Your task to perform on an android device: set the timer Image 0: 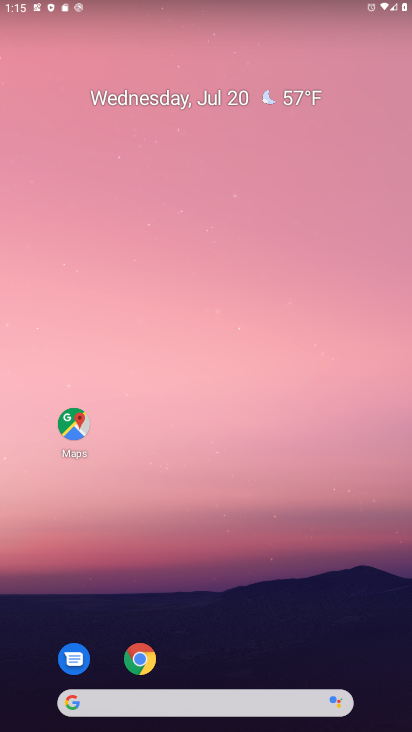
Step 0: press home button
Your task to perform on an android device: set the timer Image 1: 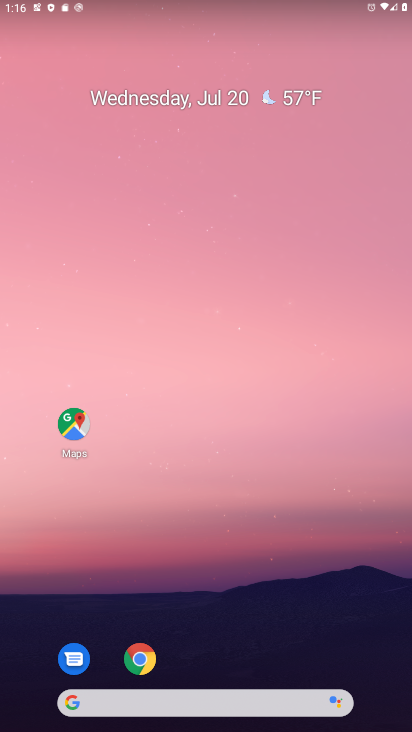
Step 1: drag from (226, 662) to (278, 7)
Your task to perform on an android device: set the timer Image 2: 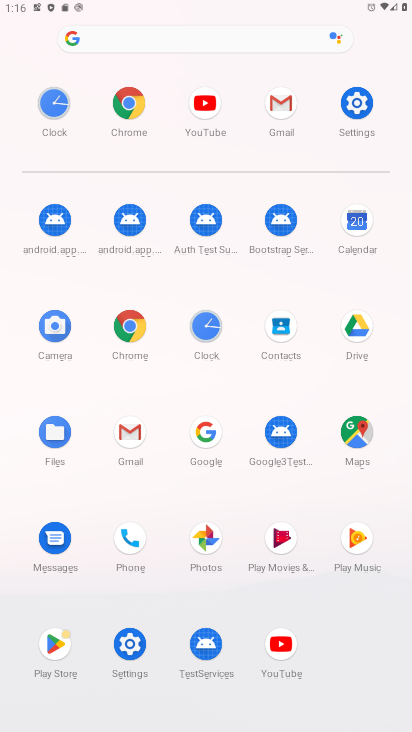
Step 2: click (202, 318)
Your task to perform on an android device: set the timer Image 3: 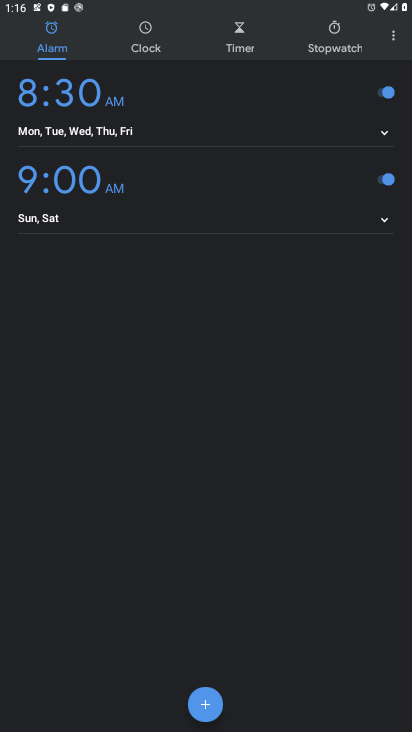
Step 3: click (235, 30)
Your task to perform on an android device: set the timer Image 4: 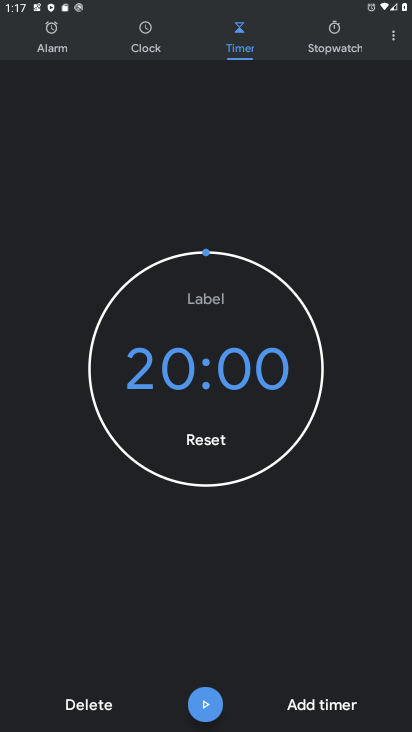
Step 4: click (202, 692)
Your task to perform on an android device: set the timer Image 5: 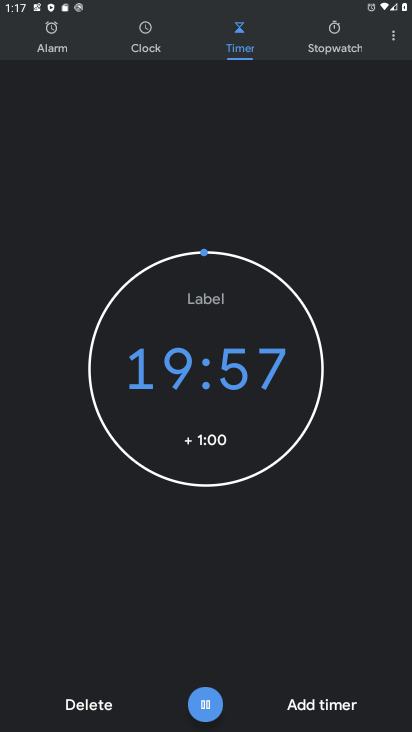
Step 5: task complete